Your task to perform on an android device: change text size in settings app Image 0: 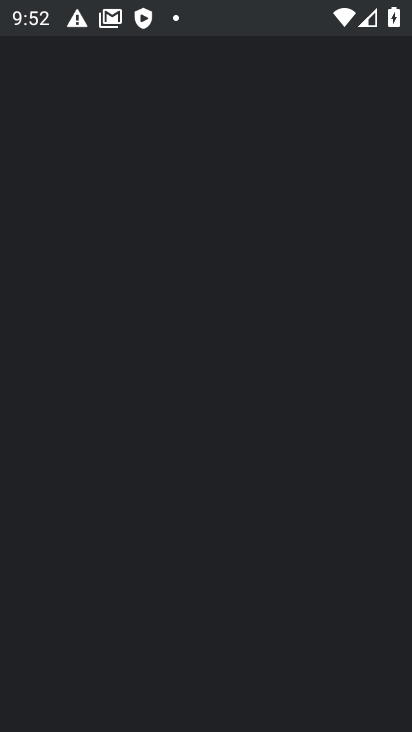
Step 0: drag from (225, 651) to (258, 87)
Your task to perform on an android device: change text size in settings app Image 1: 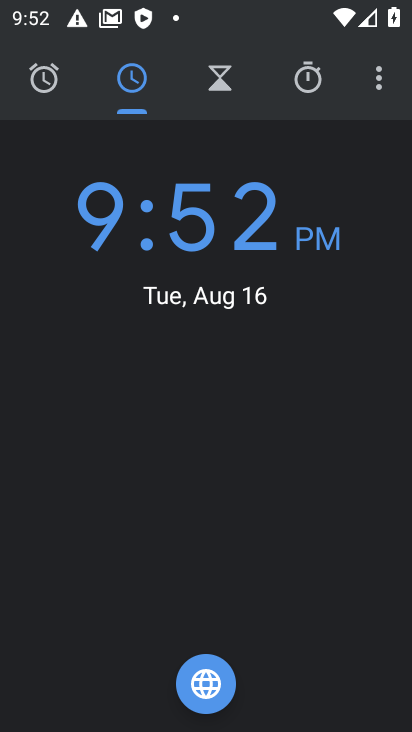
Step 1: press home button
Your task to perform on an android device: change text size in settings app Image 2: 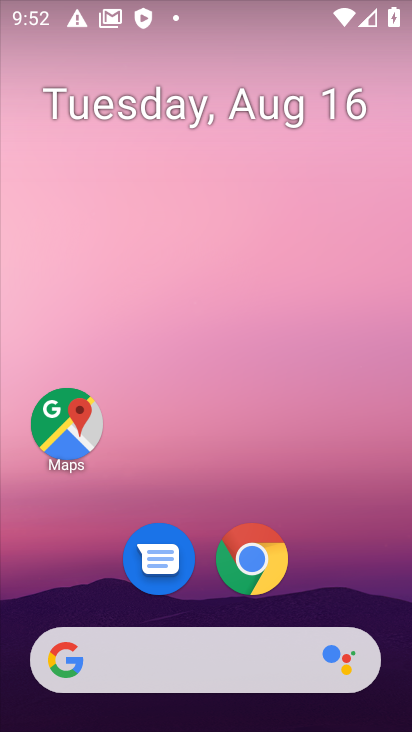
Step 2: drag from (193, 463) to (233, 154)
Your task to perform on an android device: change text size in settings app Image 3: 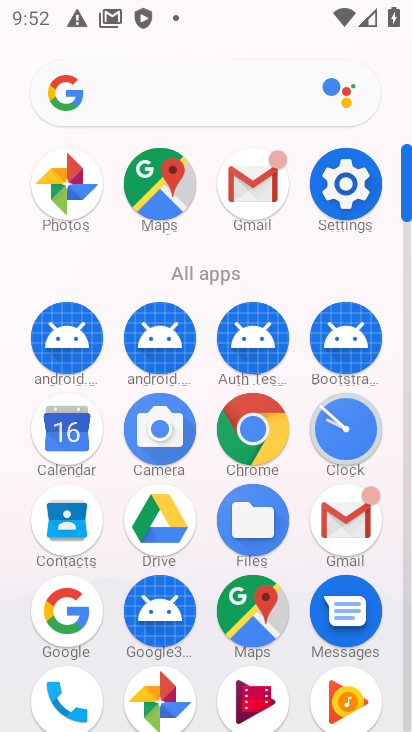
Step 3: drag from (349, 193) to (318, 406)
Your task to perform on an android device: change text size in settings app Image 4: 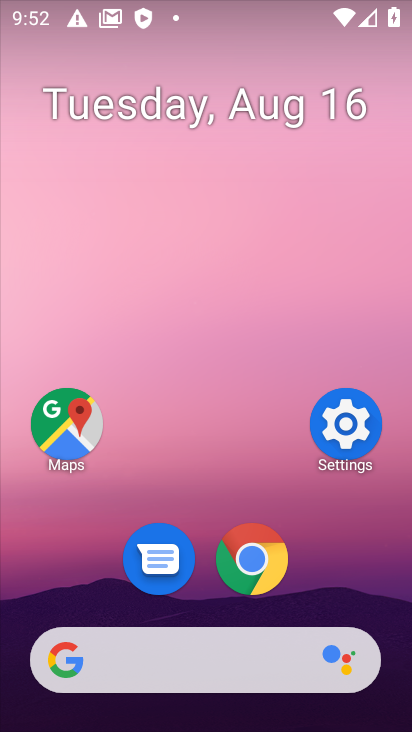
Step 4: click (343, 423)
Your task to perform on an android device: change text size in settings app Image 5: 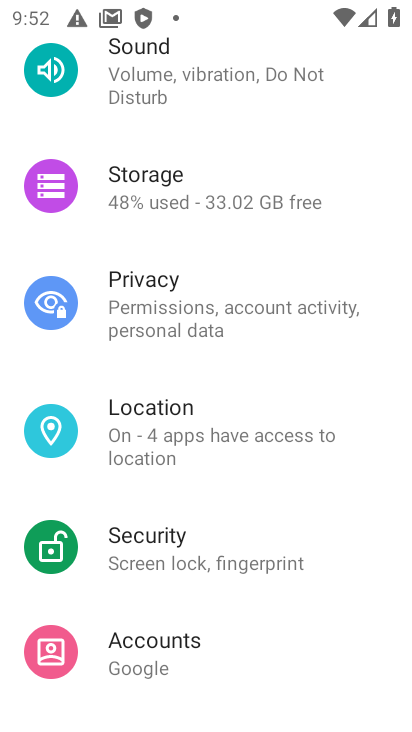
Step 5: drag from (258, 660) to (300, 143)
Your task to perform on an android device: change text size in settings app Image 6: 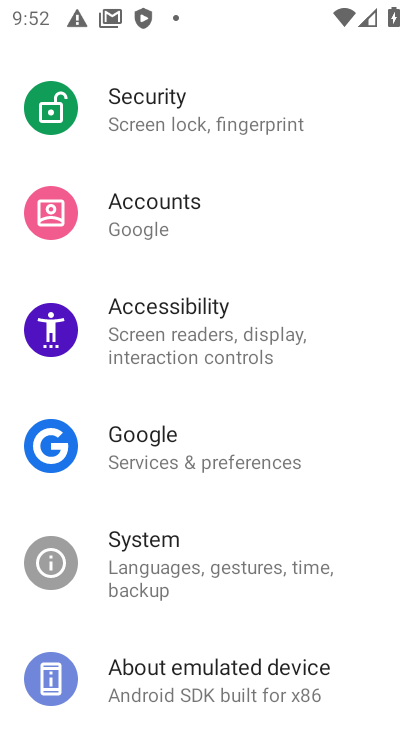
Step 6: drag from (284, 171) to (277, 681)
Your task to perform on an android device: change text size in settings app Image 7: 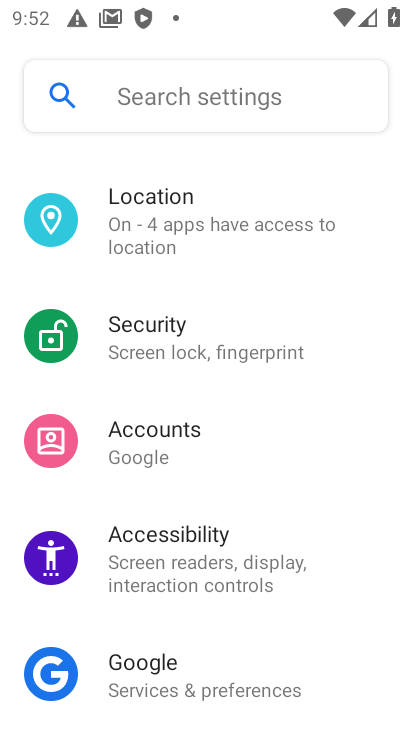
Step 7: drag from (299, 155) to (332, 641)
Your task to perform on an android device: change text size in settings app Image 8: 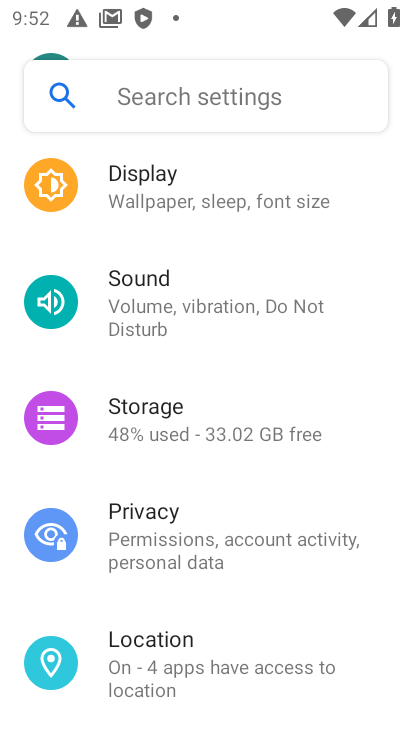
Step 8: click (156, 197)
Your task to perform on an android device: change text size in settings app Image 9: 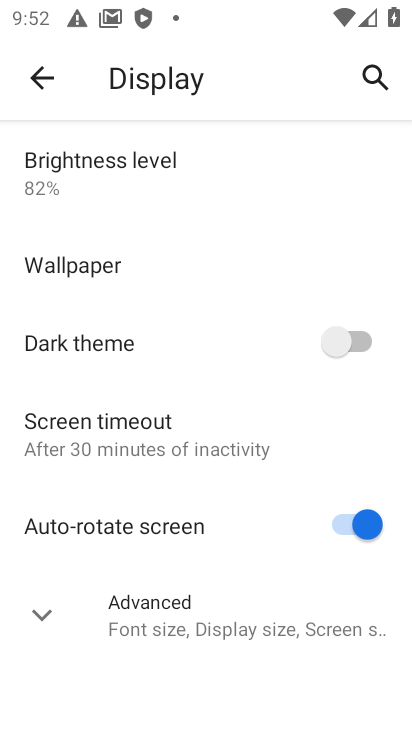
Step 9: click (171, 632)
Your task to perform on an android device: change text size in settings app Image 10: 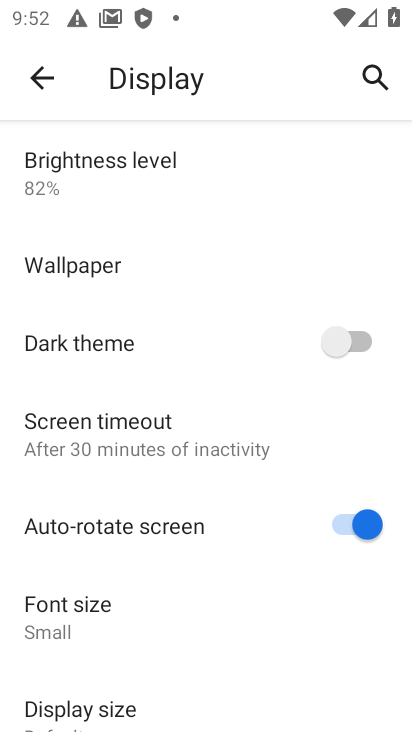
Step 10: click (85, 605)
Your task to perform on an android device: change text size in settings app Image 11: 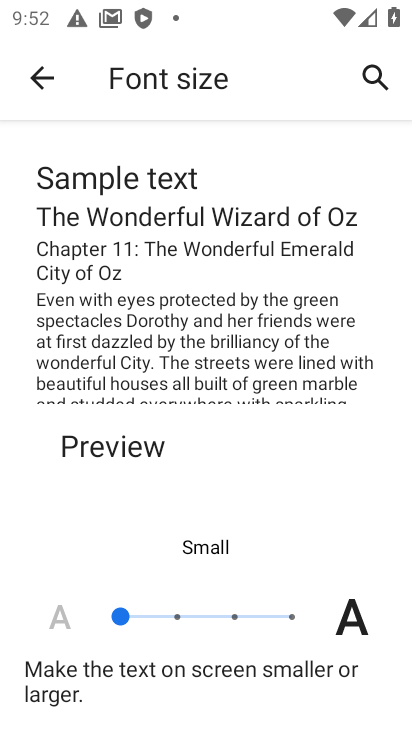
Step 11: click (171, 614)
Your task to perform on an android device: change text size in settings app Image 12: 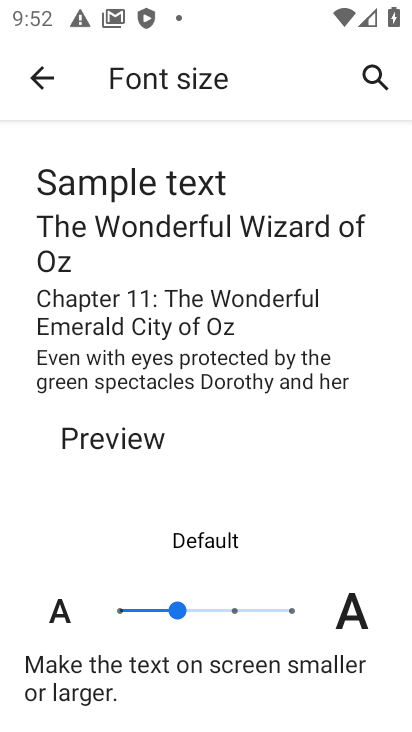
Step 12: task complete